Your task to perform on an android device: read, delete, or share a saved page in the chrome app Image 0: 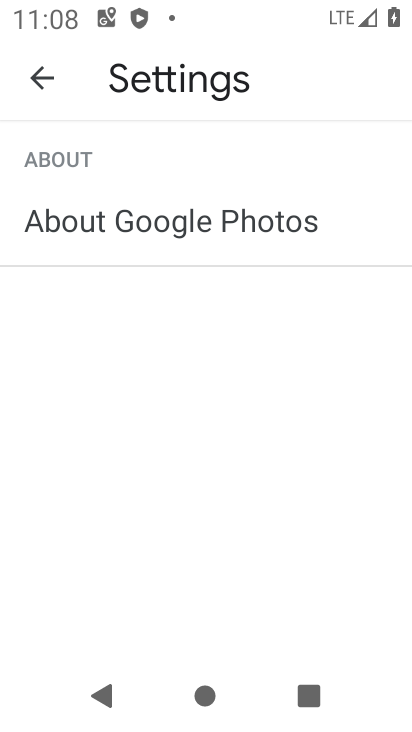
Step 0: press back button
Your task to perform on an android device: read, delete, or share a saved page in the chrome app Image 1: 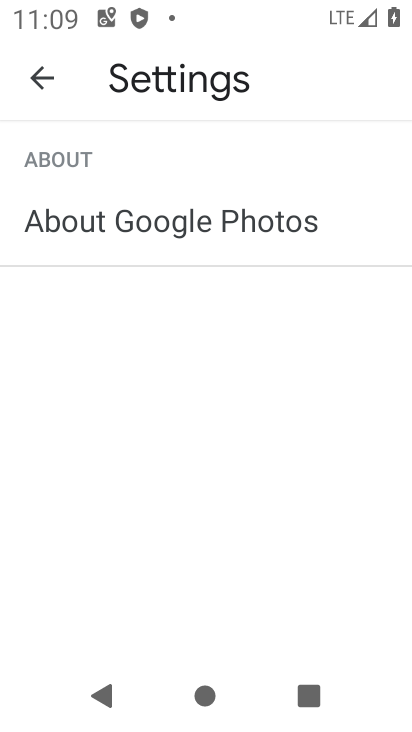
Step 1: click (39, 63)
Your task to perform on an android device: read, delete, or share a saved page in the chrome app Image 2: 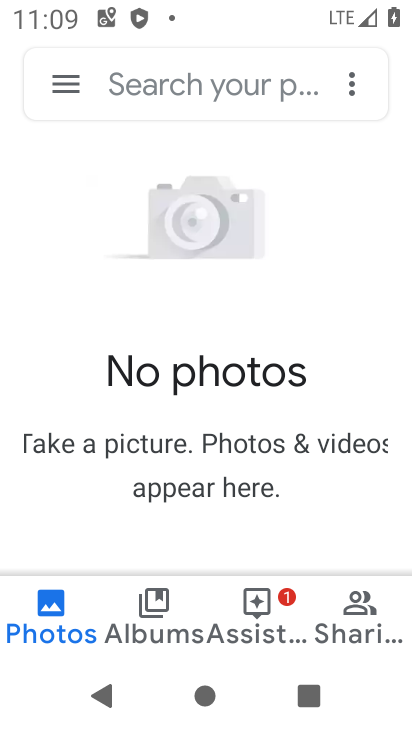
Step 2: press back button
Your task to perform on an android device: read, delete, or share a saved page in the chrome app Image 3: 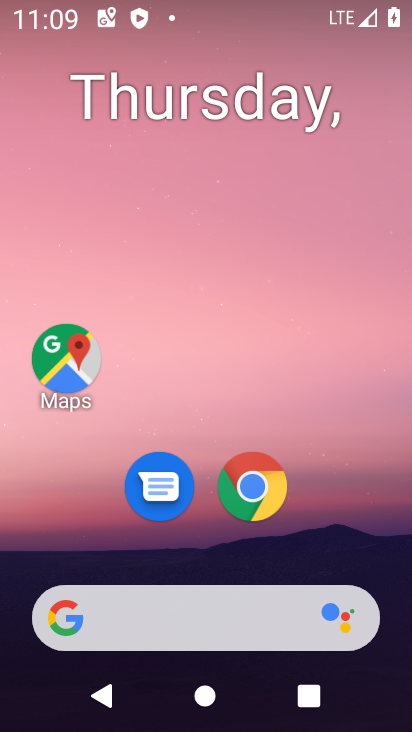
Step 3: click (260, 486)
Your task to perform on an android device: read, delete, or share a saved page in the chrome app Image 4: 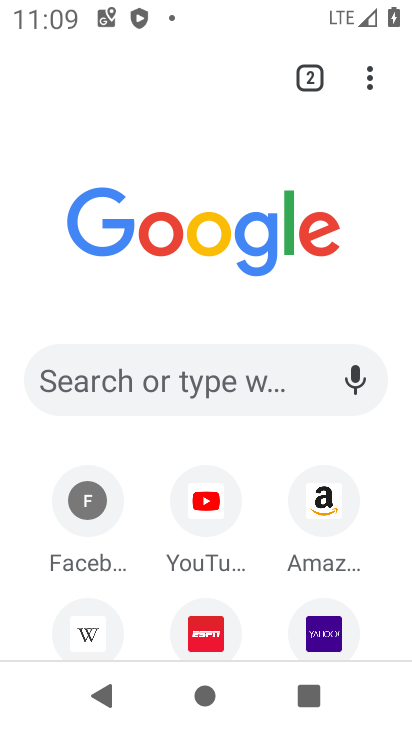
Step 4: drag from (366, 66) to (144, 510)
Your task to perform on an android device: read, delete, or share a saved page in the chrome app Image 5: 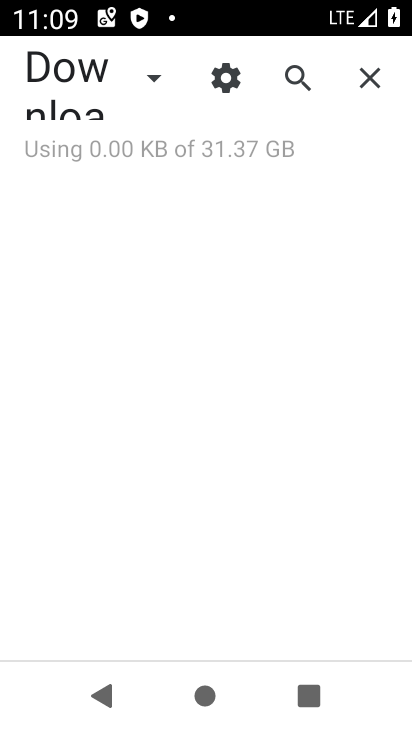
Step 5: click (153, 88)
Your task to perform on an android device: read, delete, or share a saved page in the chrome app Image 6: 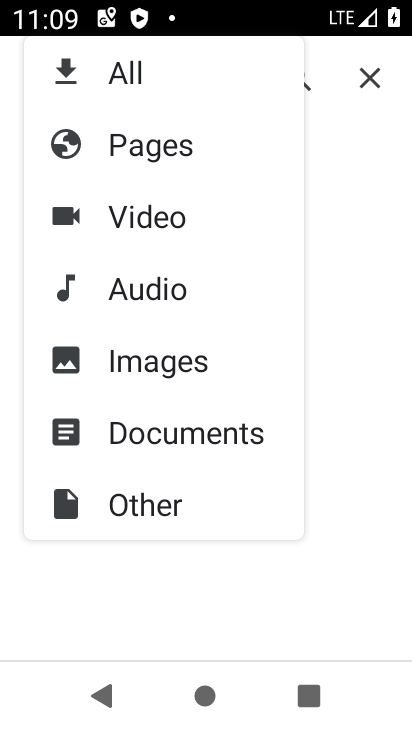
Step 6: click (144, 152)
Your task to perform on an android device: read, delete, or share a saved page in the chrome app Image 7: 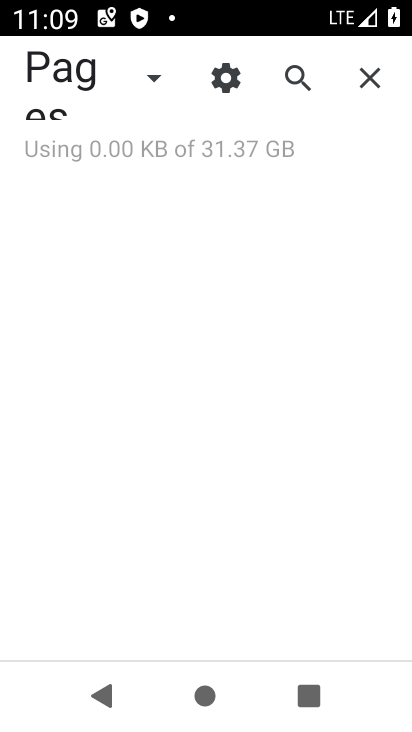
Step 7: task complete